Your task to perform on an android device: Go to notification settings Image 0: 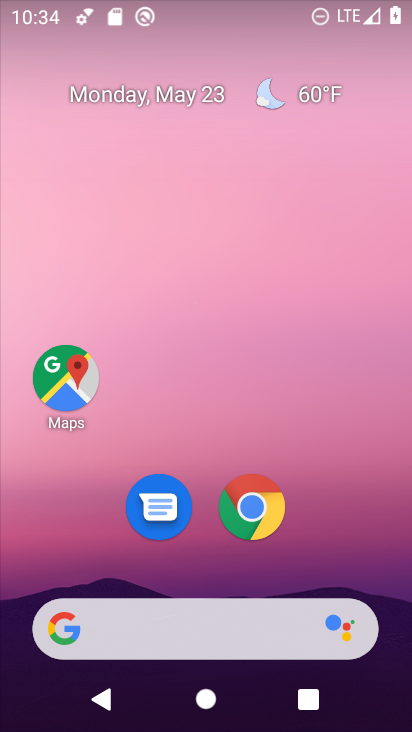
Step 0: drag from (315, 553) to (288, 96)
Your task to perform on an android device: Go to notification settings Image 1: 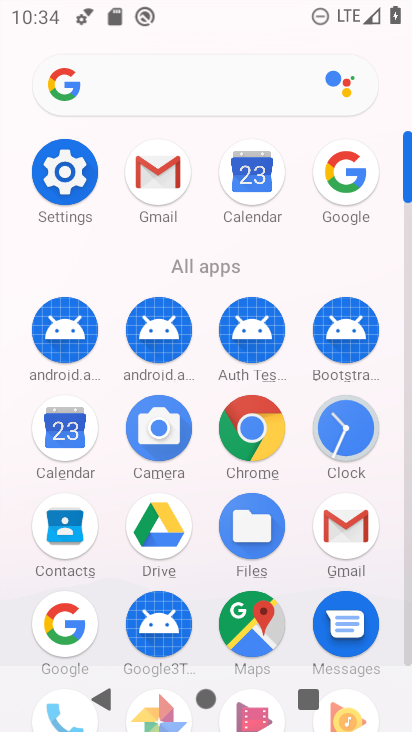
Step 1: click (66, 170)
Your task to perform on an android device: Go to notification settings Image 2: 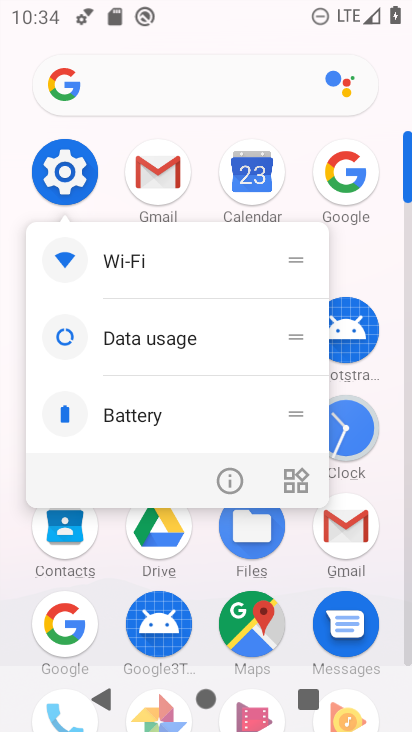
Step 2: click (66, 170)
Your task to perform on an android device: Go to notification settings Image 3: 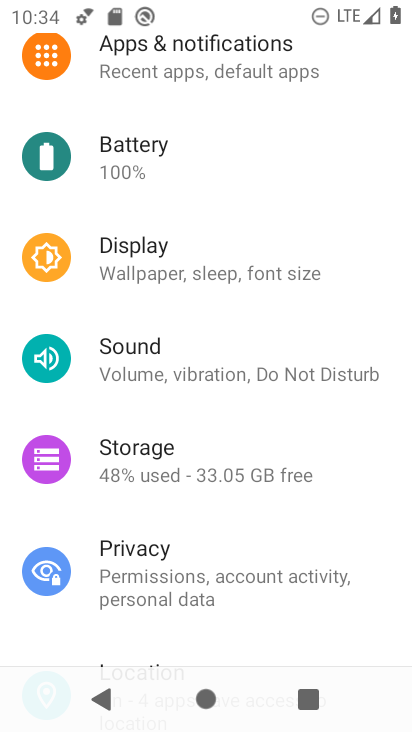
Step 3: drag from (283, 195) to (257, 319)
Your task to perform on an android device: Go to notification settings Image 4: 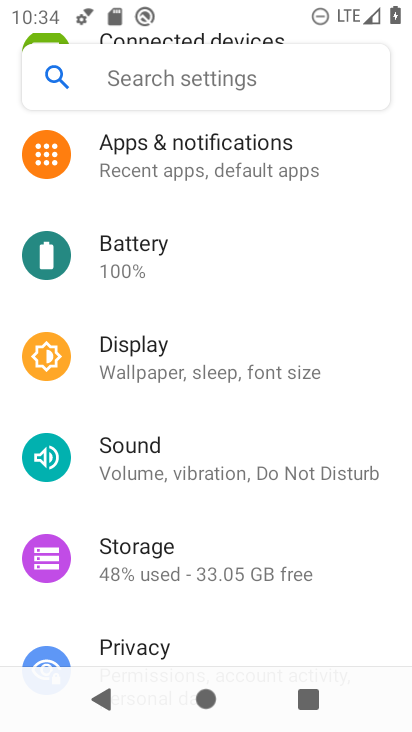
Step 4: click (222, 148)
Your task to perform on an android device: Go to notification settings Image 5: 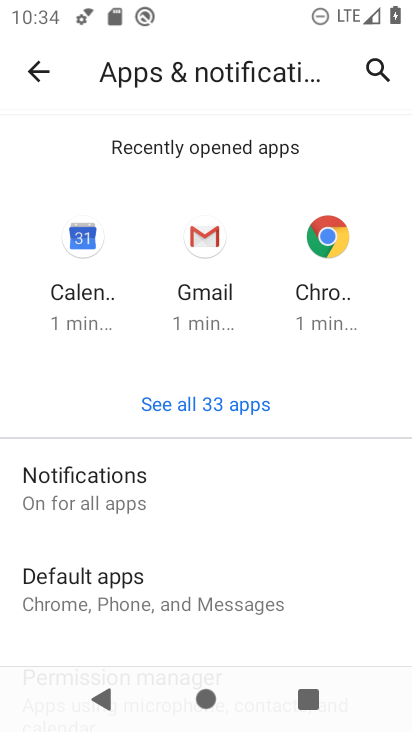
Step 5: click (127, 471)
Your task to perform on an android device: Go to notification settings Image 6: 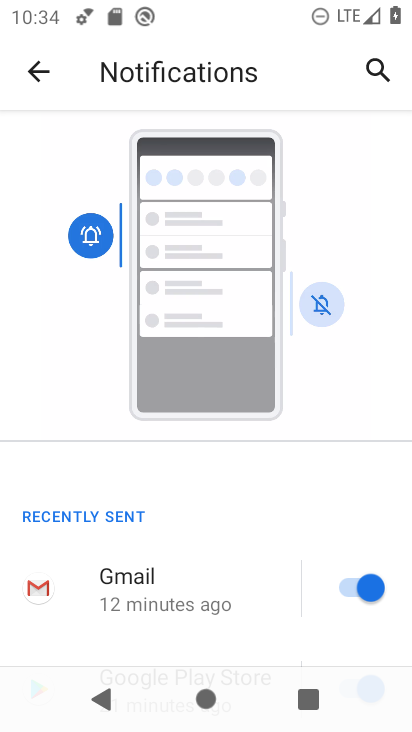
Step 6: task complete